Your task to perform on an android device: Search for the best custom wallets on Etsy. Image 0: 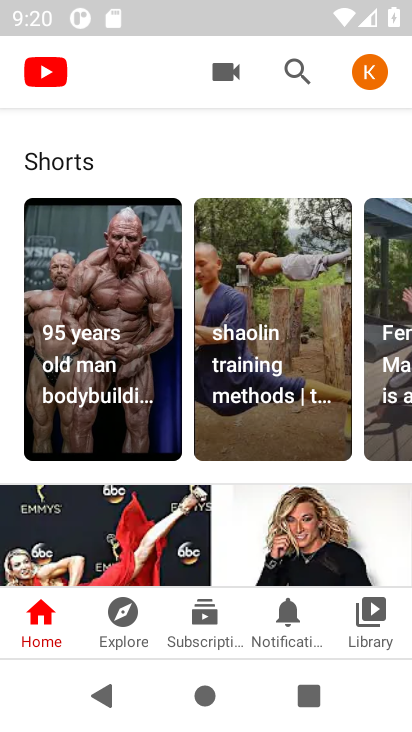
Step 0: click (305, 402)
Your task to perform on an android device: Search for the best custom wallets on Etsy. Image 1: 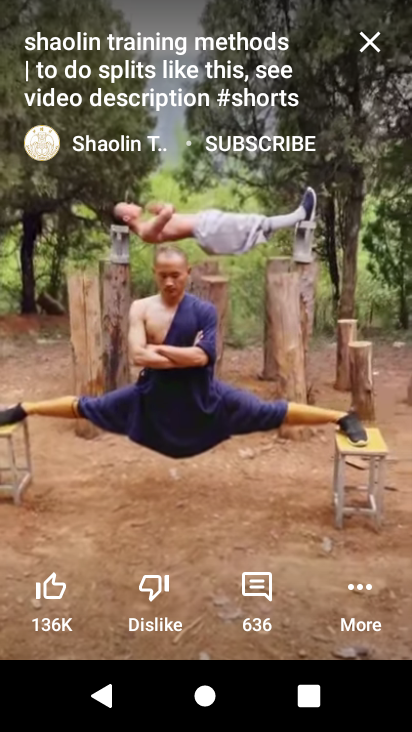
Step 1: task complete